Your task to perform on an android device: change text size in settings app Image 0: 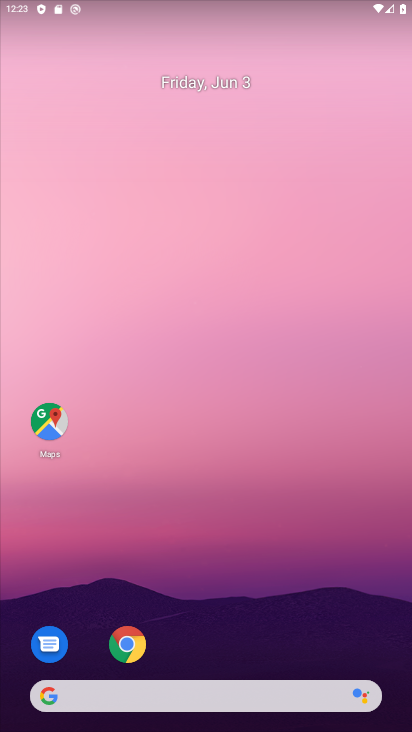
Step 0: drag from (222, 731) to (247, 23)
Your task to perform on an android device: change text size in settings app Image 1: 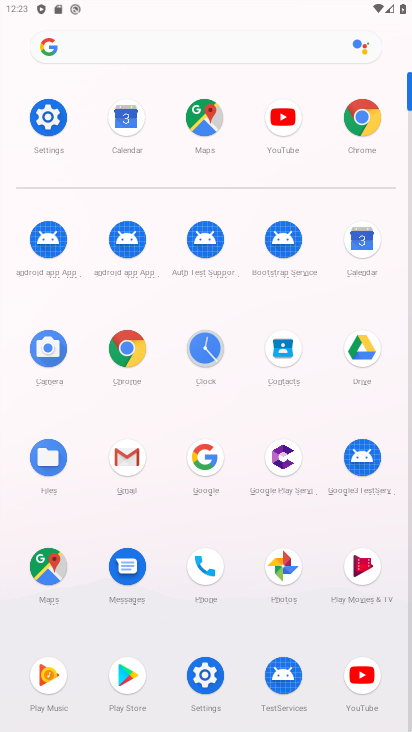
Step 1: click (46, 116)
Your task to perform on an android device: change text size in settings app Image 2: 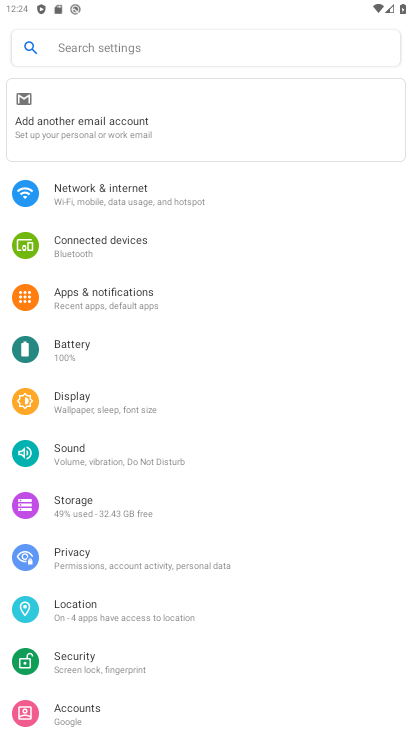
Step 2: click (75, 410)
Your task to perform on an android device: change text size in settings app Image 3: 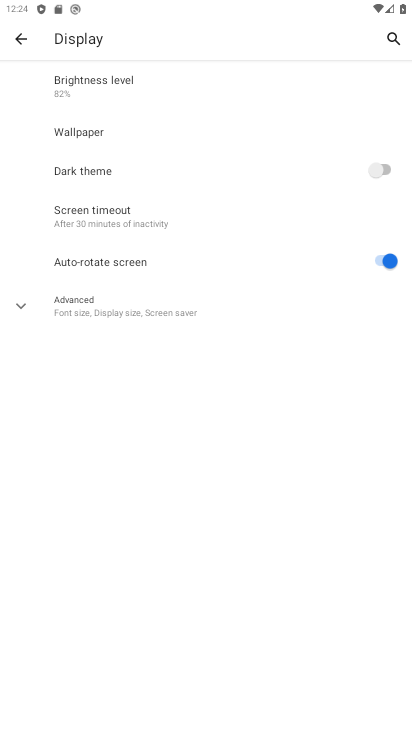
Step 3: click (91, 313)
Your task to perform on an android device: change text size in settings app Image 4: 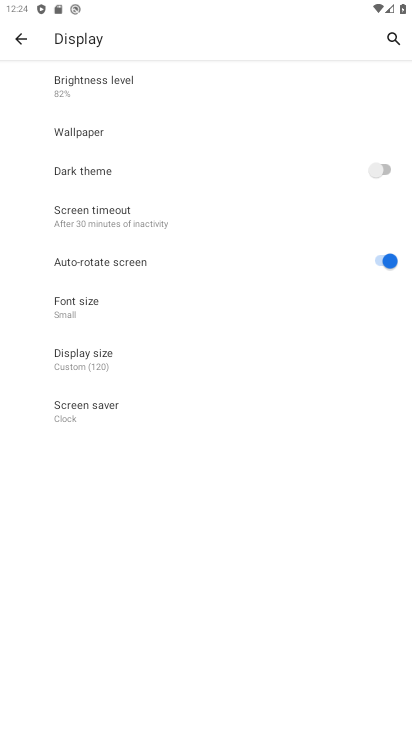
Step 4: click (76, 307)
Your task to perform on an android device: change text size in settings app Image 5: 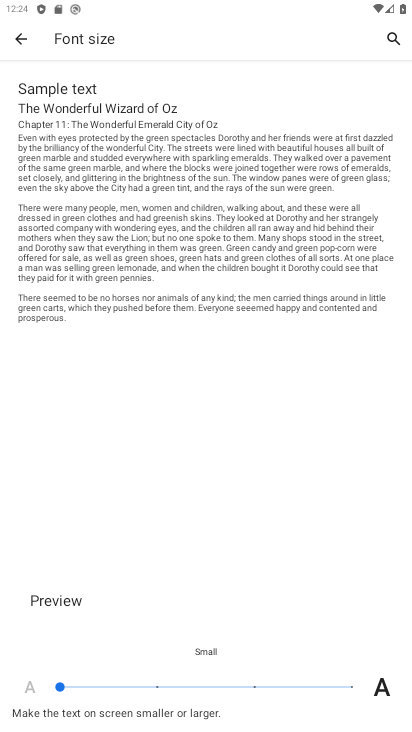
Step 5: click (158, 688)
Your task to perform on an android device: change text size in settings app Image 6: 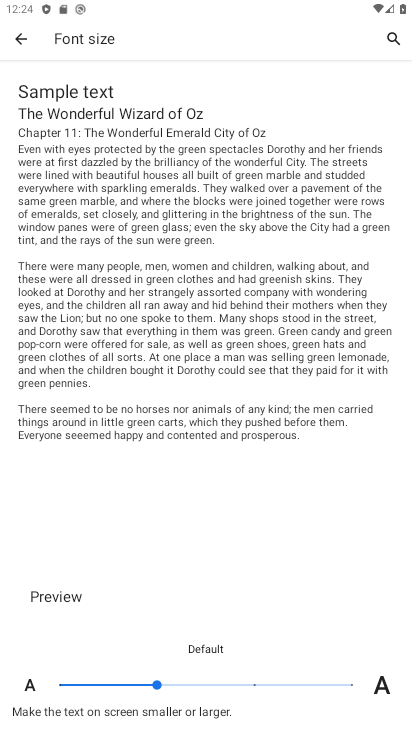
Step 6: task complete